Your task to perform on an android device: uninstall "Duolingo: language lessons" Image 0: 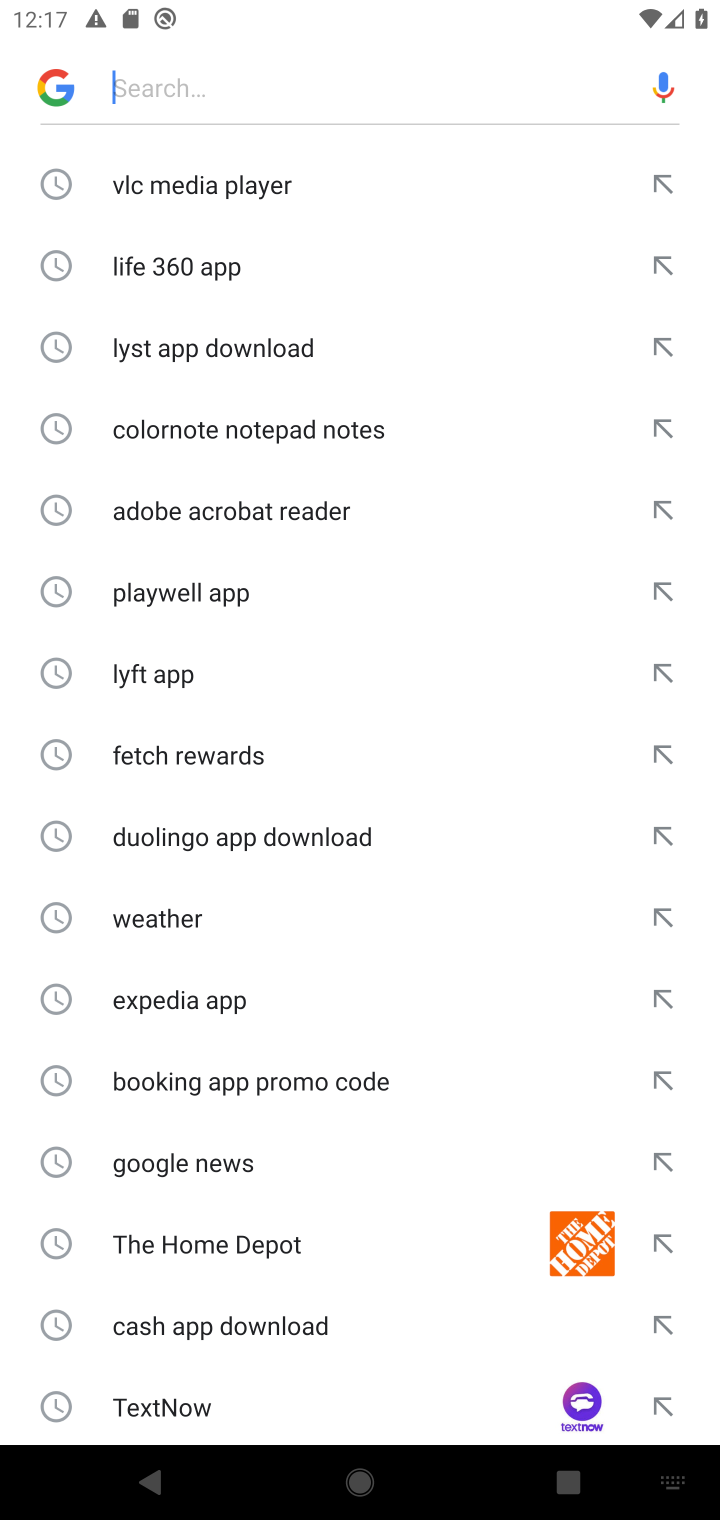
Step 0: press home button
Your task to perform on an android device: uninstall "Duolingo: language lessons" Image 1: 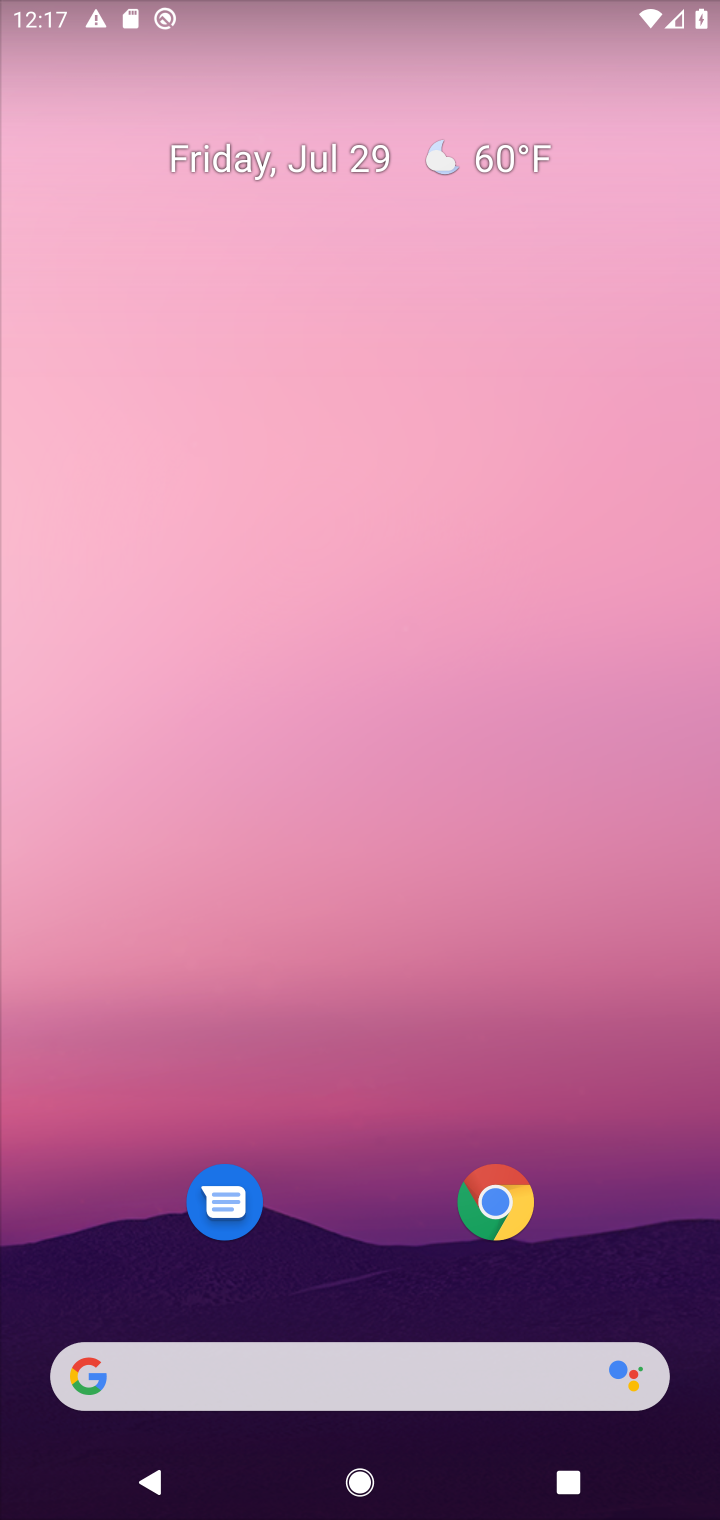
Step 1: click (404, 1366)
Your task to perform on an android device: uninstall "Duolingo: language lessons" Image 2: 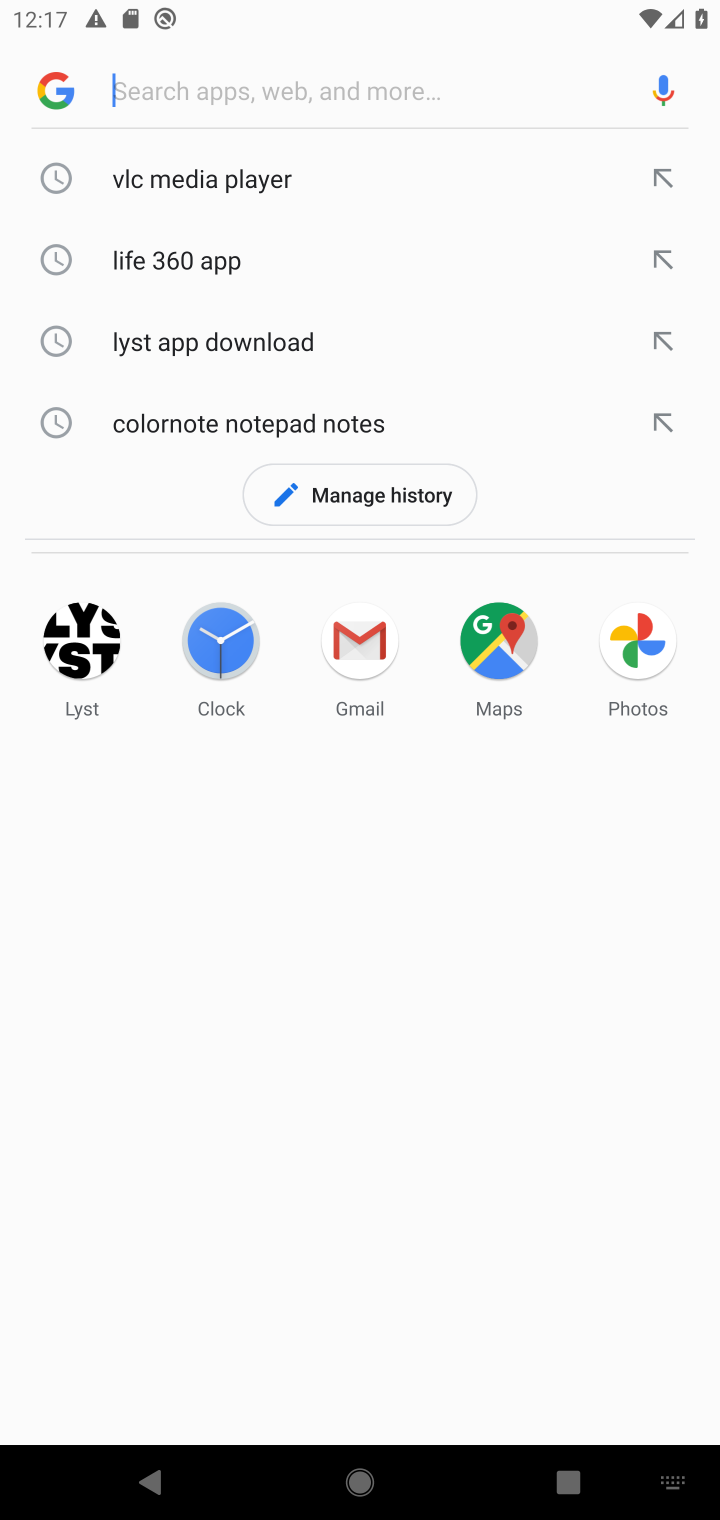
Step 2: type "duolingo"
Your task to perform on an android device: uninstall "Duolingo: language lessons" Image 3: 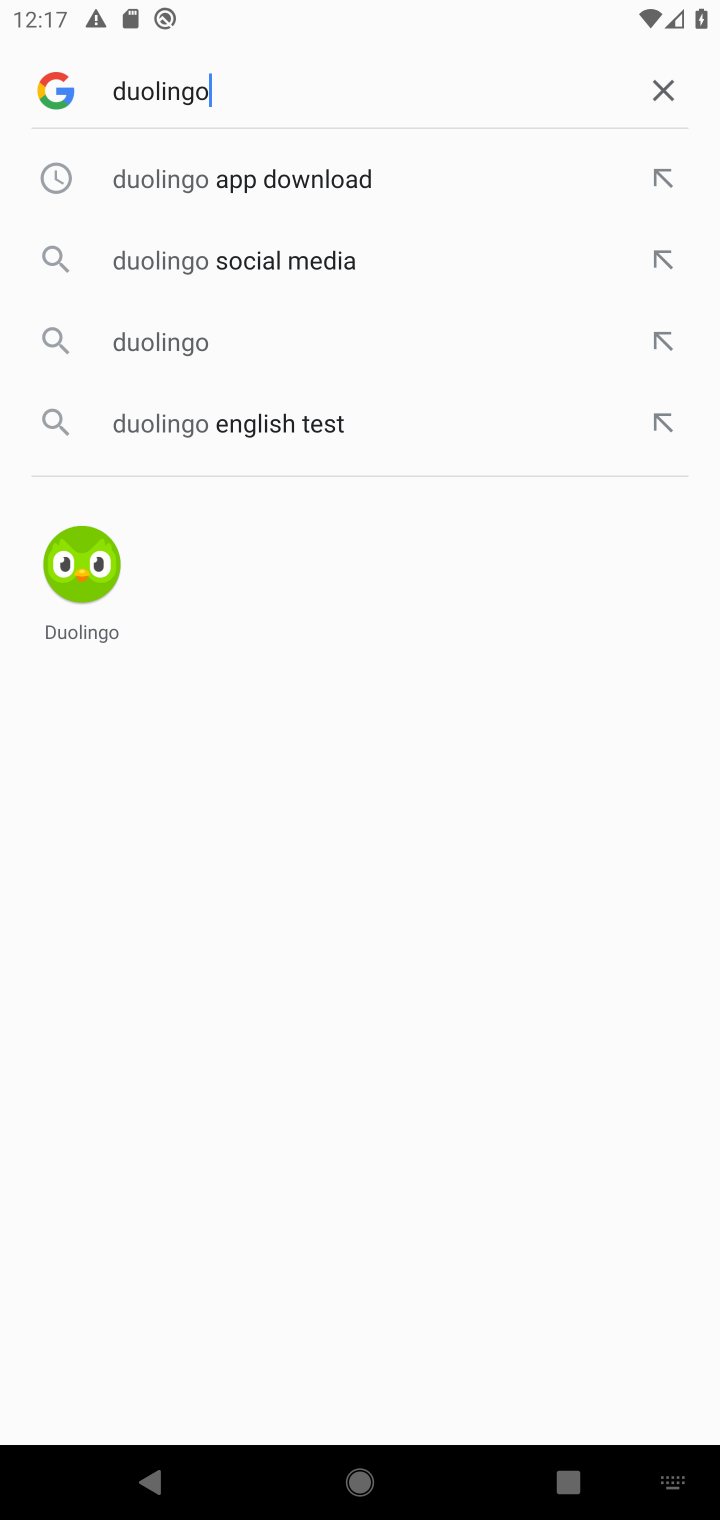
Step 3: click (655, 166)
Your task to perform on an android device: uninstall "Duolingo: language lessons" Image 4: 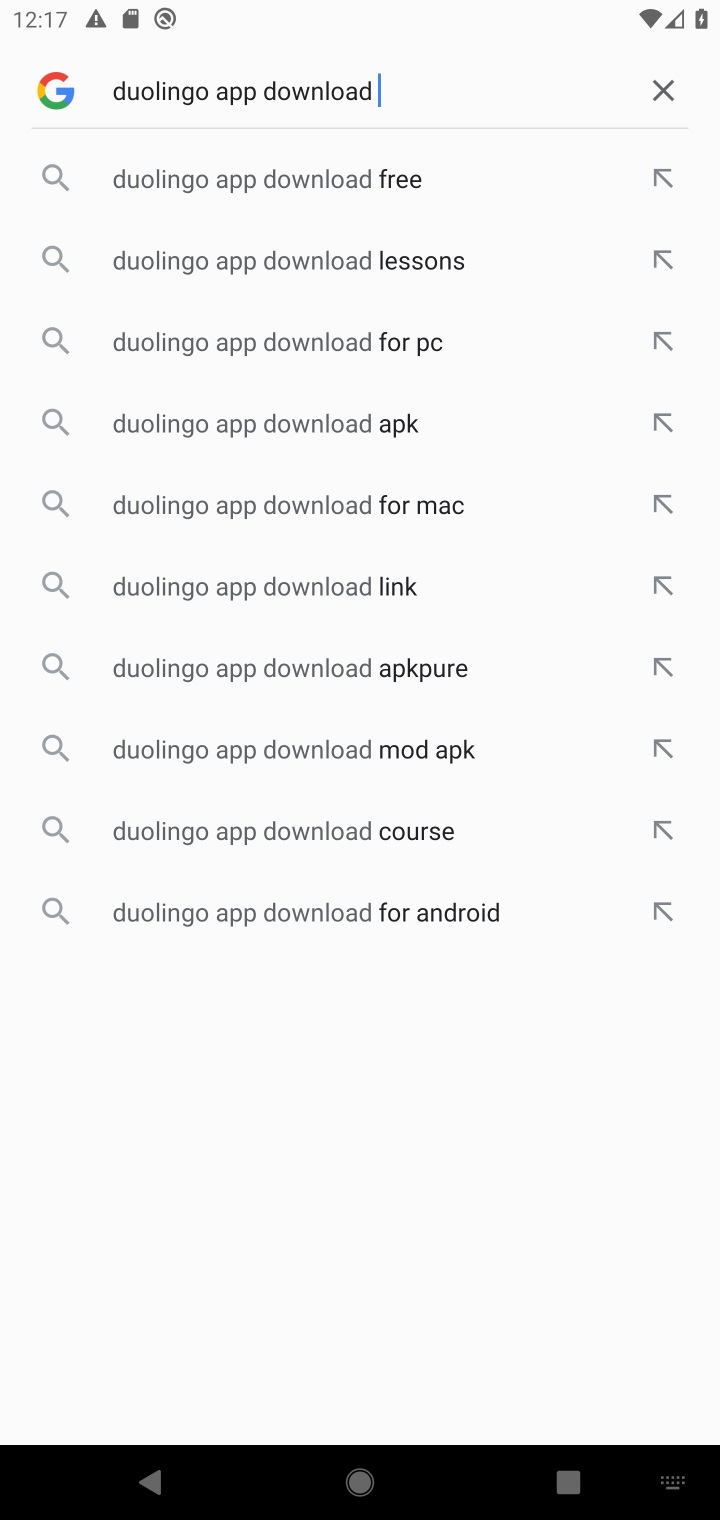
Step 4: click (408, 185)
Your task to perform on an android device: uninstall "Duolingo: language lessons" Image 5: 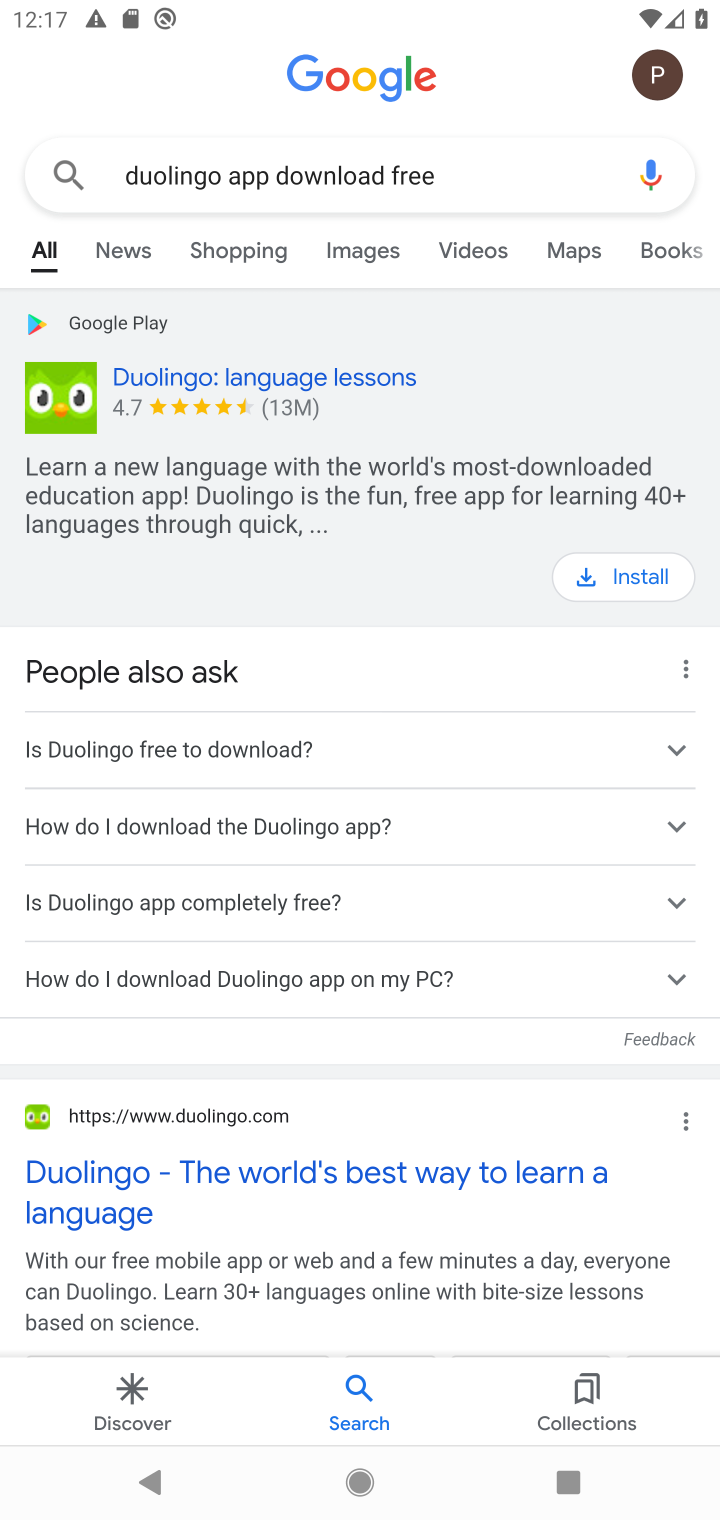
Step 5: click (607, 575)
Your task to perform on an android device: uninstall "Duolingo: language lessons" Image 6: 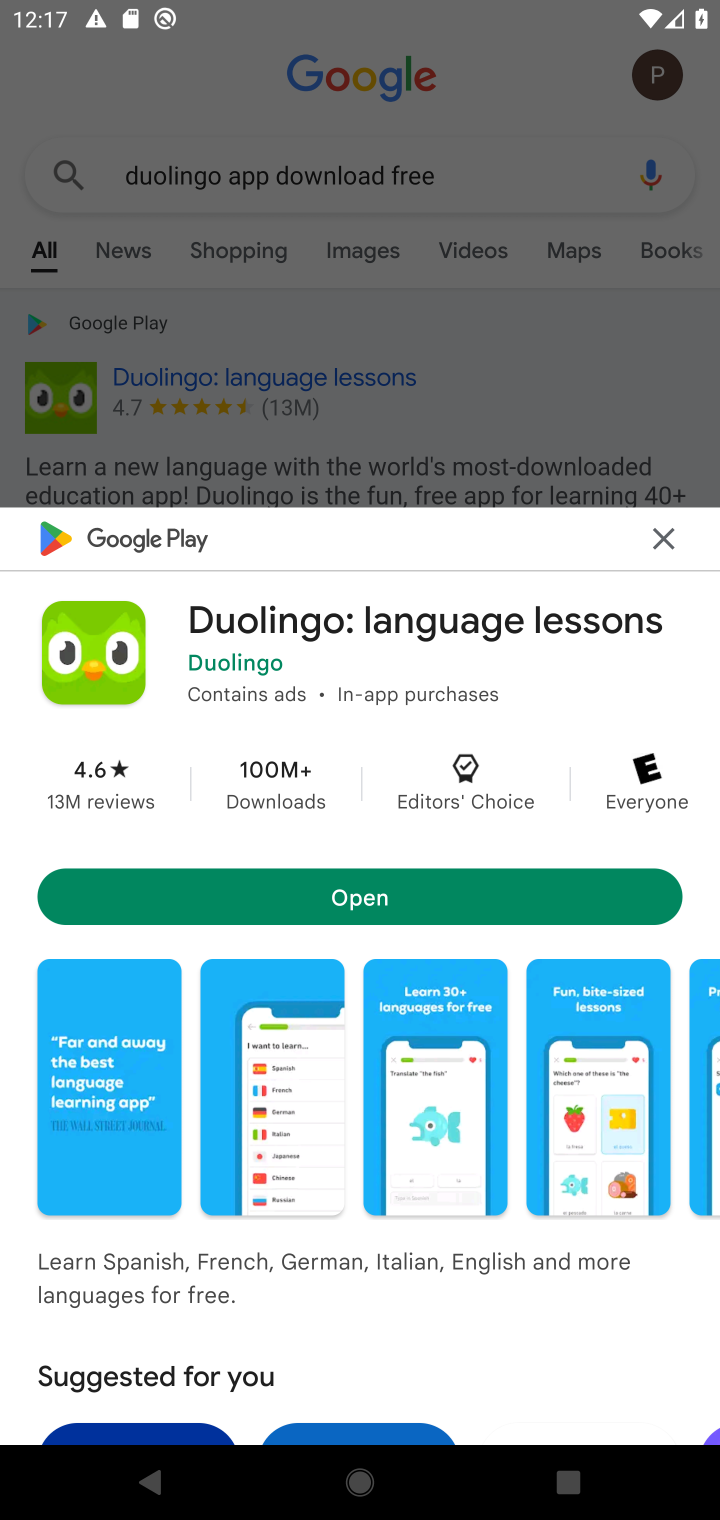
Step 6: click (306, 907)
Your task to perform on an android device: uninstall "Duolingo: language lessons" Image 7: 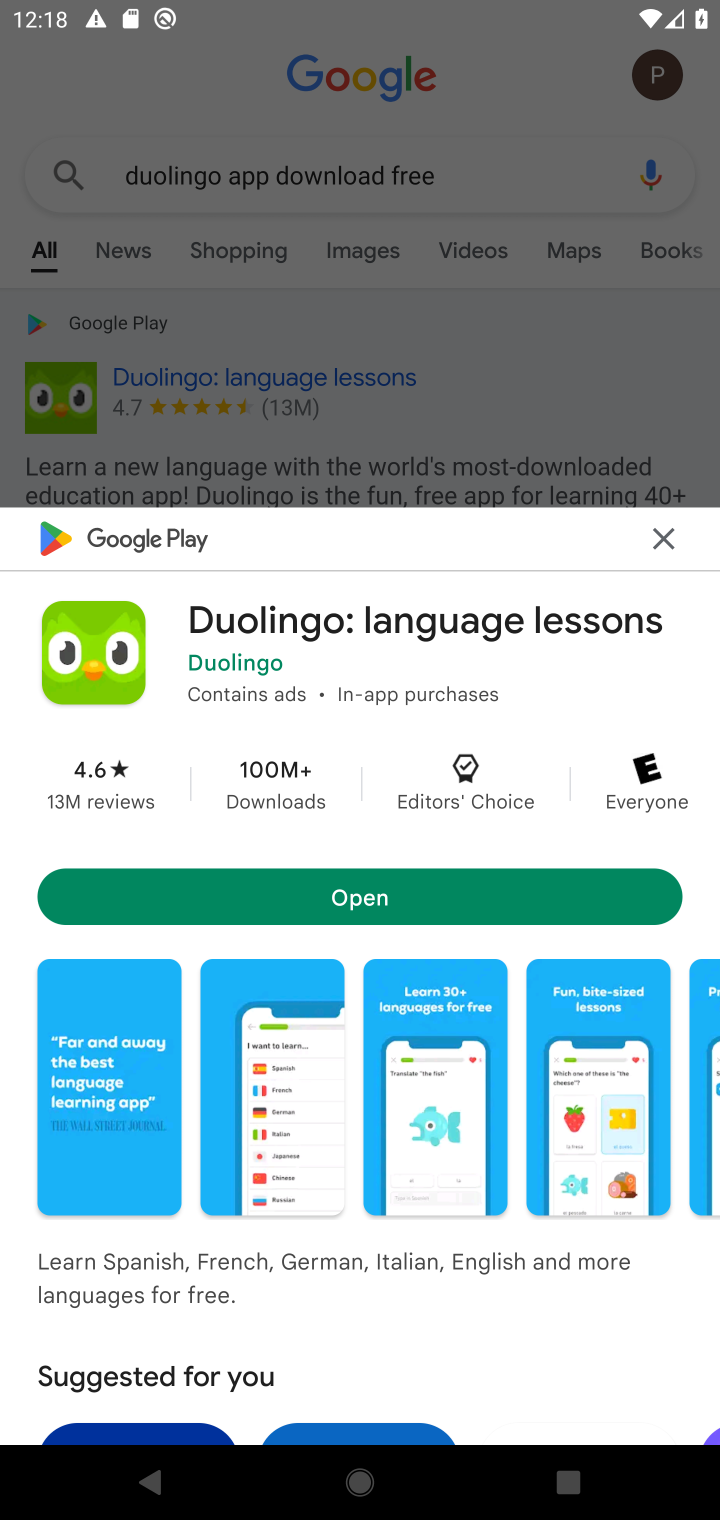
Step 7: task complete